Your task to perform on an android device: clear history in the chrome app Image 0: 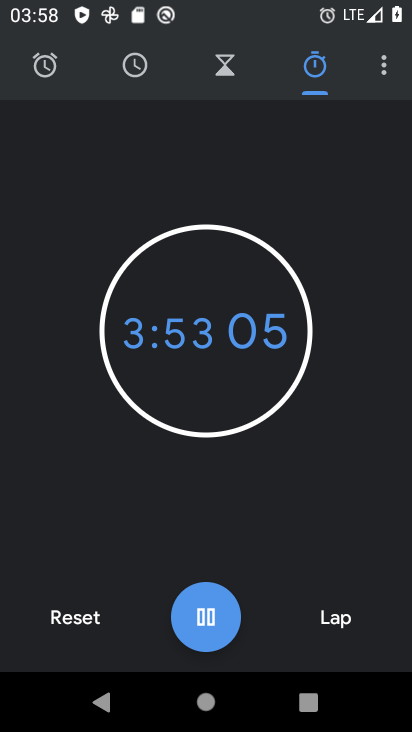
Step 0: press home button
Your task to perform on an android device: clear history in the chrome app Image 1: 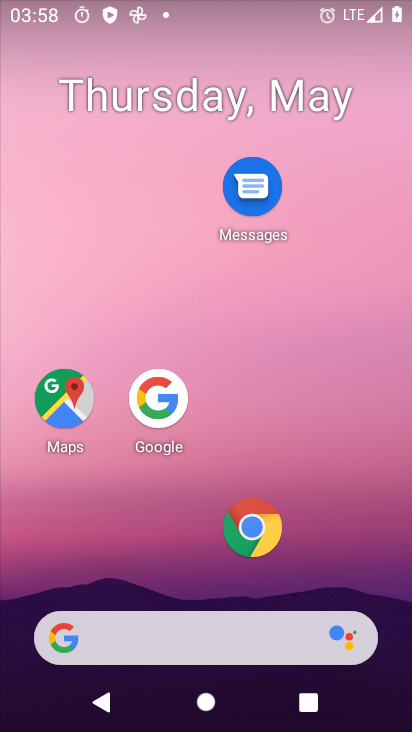
Step 1: drag from (188, 558) to (226, 69)
Your task to perform on an android device: clear history in the chrome app Image 2: 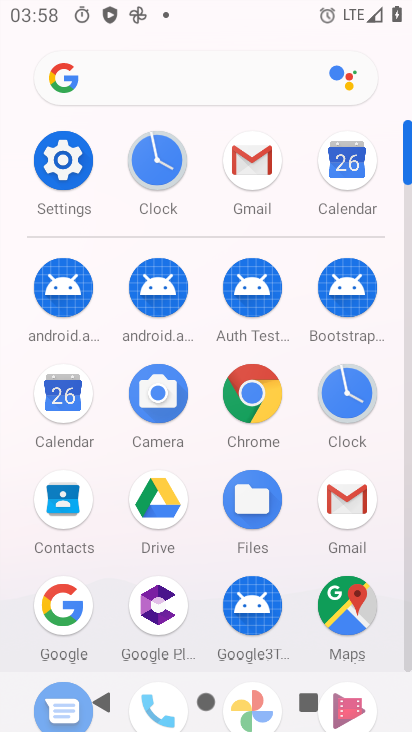
Step 2: click (252, 393)
Your task to perform on an android device: clear history in the chrome app Image 3: 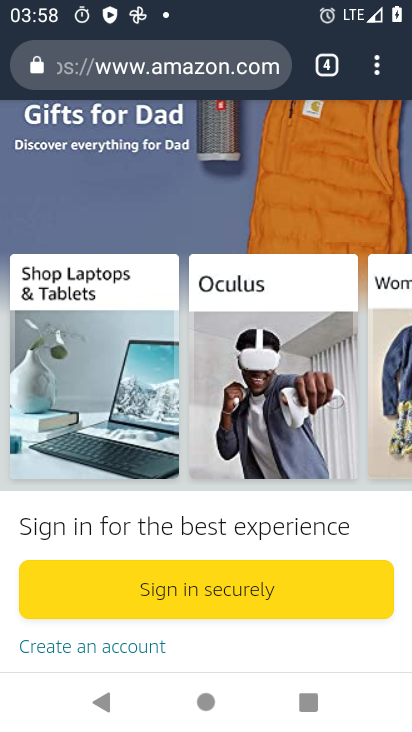
Step 3: click (377, 66)
Your task to perform on an android device: clear history in the chrome app Image 4: 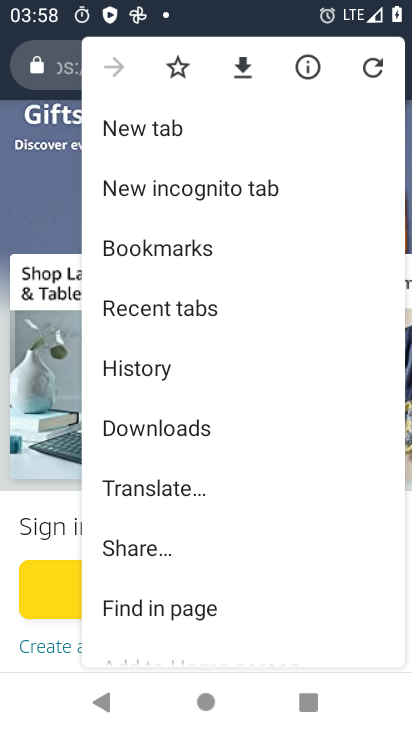
Step 4: click (147, 366)
Your task to perform on an android device: clear history in the chrome app Image 5: 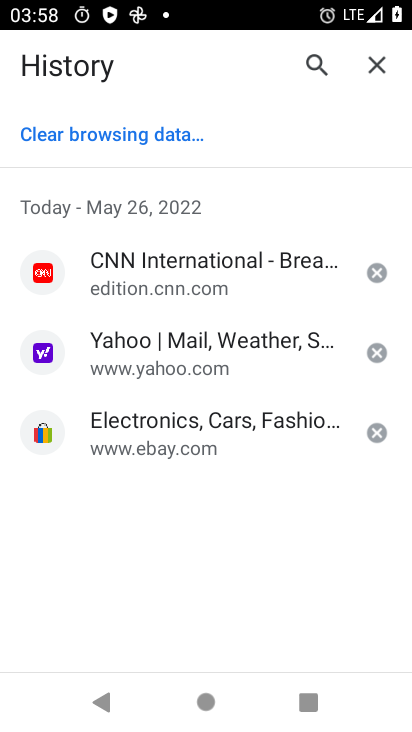
Step 5: click (147, 130)
Your task to perform on an android device: clear history in the chrome app Image 6: 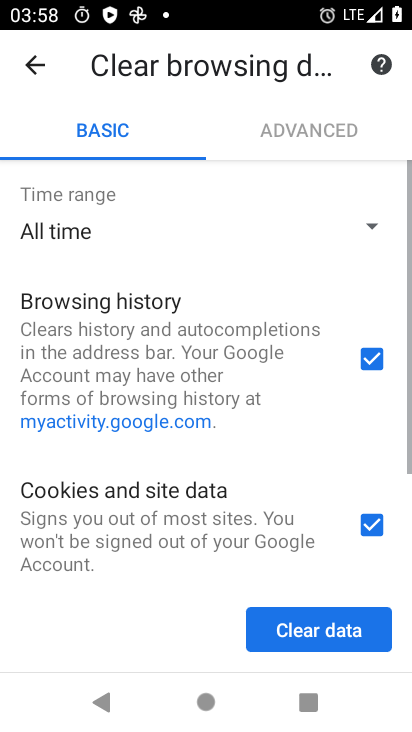
Step 6: click (300, 630)
Your task to perform on an android device: clear history in the chrome app Image 7: 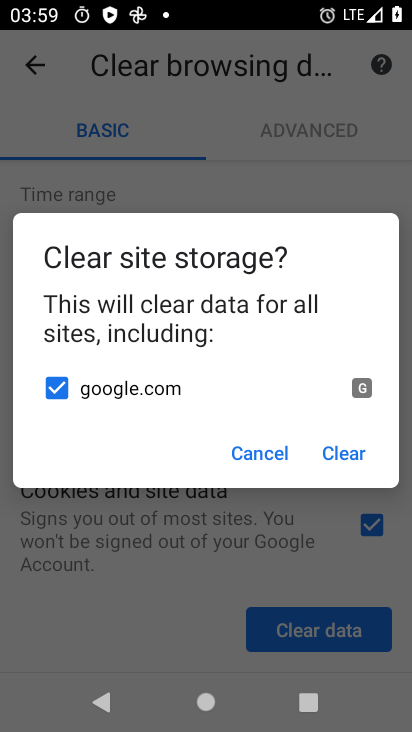
Step 7: click (335, 443)
Your task to perform on an android device: clear history in the chrome app Image 8: 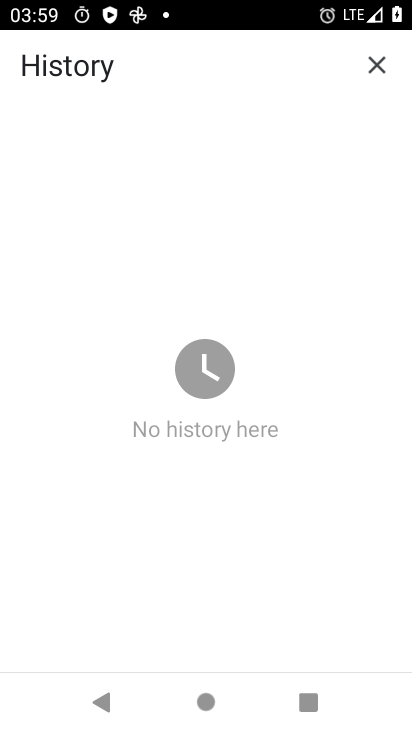
Step 8: task complete